Your task to perform on an android device: toggle sleep mode Image 0: 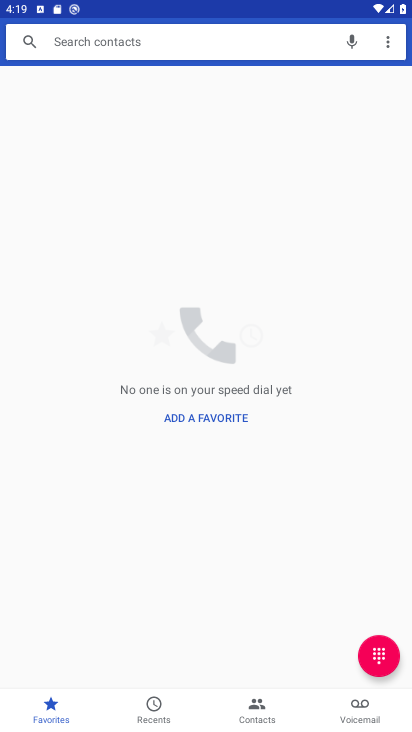
Step 0: press home button
Your task to perform on an android device: toggle sleep mode Image 1: 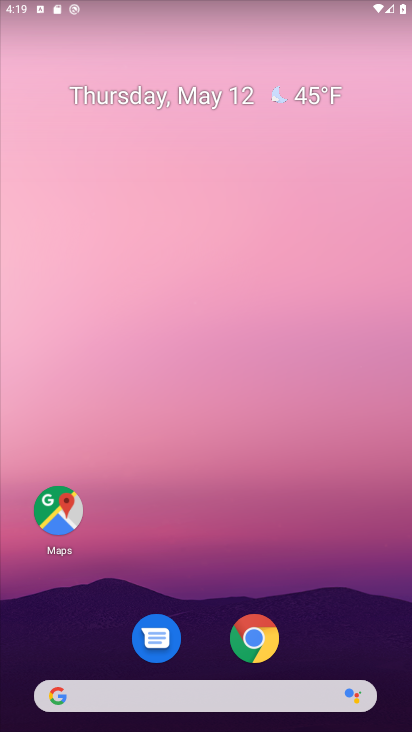
Step 1: drag from (288, 473) to (236, 143)
Your task to perform on an android device: toggle sleep mode Image 2: 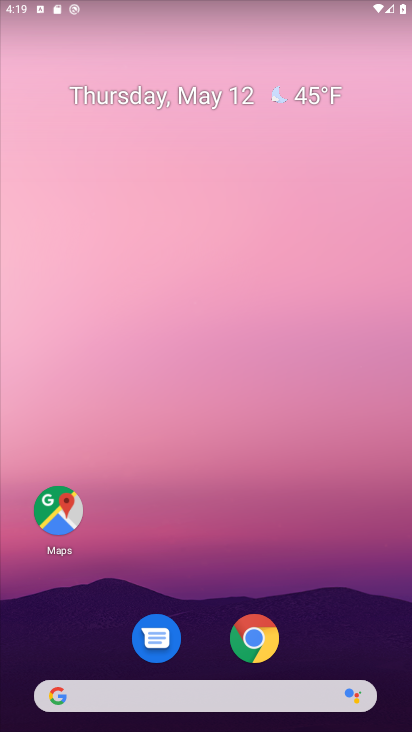
Step 2: drag from (269, 398) to (203, 0)
Your task to perform on an android device: toggle sleep mode Image 3: 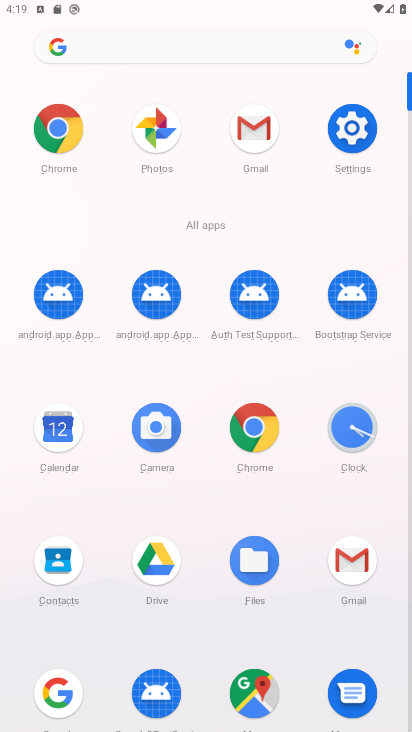
Step 3: click (349, 142)
Your task to perform on an android device: toggle sleep mode Image 4: 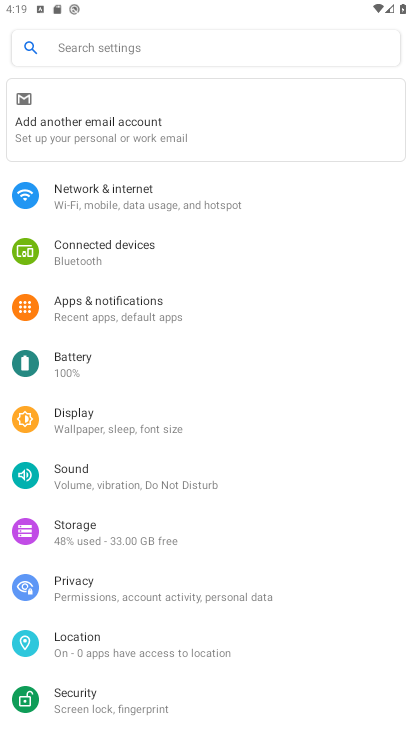
Step 4: click (118, 411)
Your task to perform on an android device: toggle sleep mode Image 5: 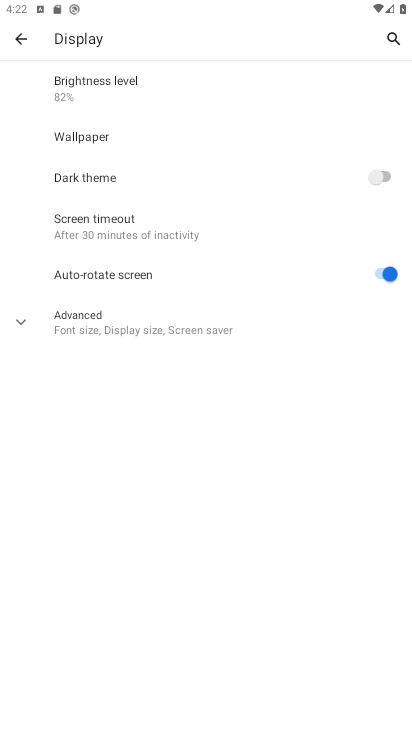
Step 5: task complete